Your task to perform on an android device: Open wifi settings Image 0: 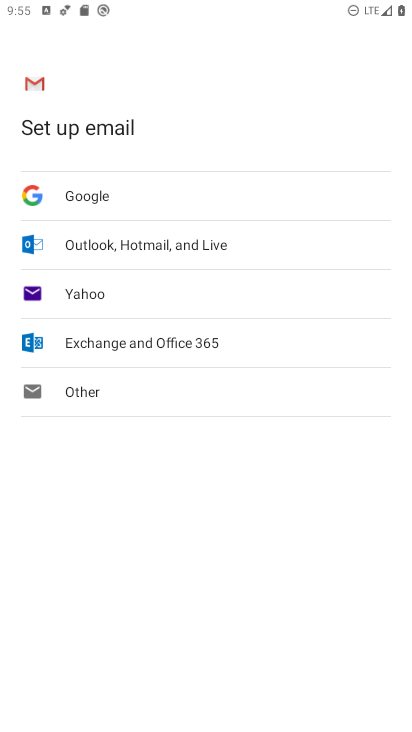
Step 0: press home button
Your task to perform on an android device: Open wifi settings Image 1: 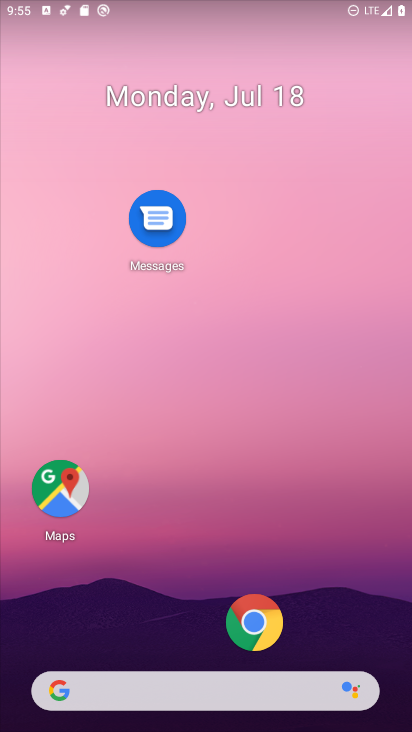
Step 1: drag from (264, 670) to (290, 86)
Your task to perform on an android device: Open wifi settings Image 2: 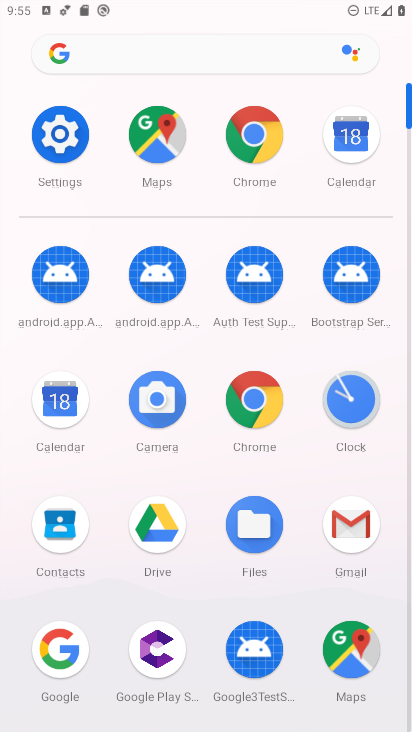
Step 2: click (62, 138)
Your task to perform on an android device: Open wifi settings Image 3: 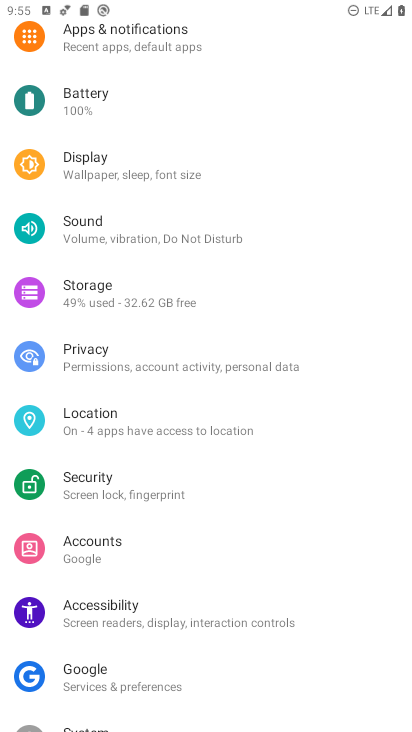
Step 3: drag from (223, 317) to (188, 477)
Your task to perform on an android device: Open wifi settings Image 4: 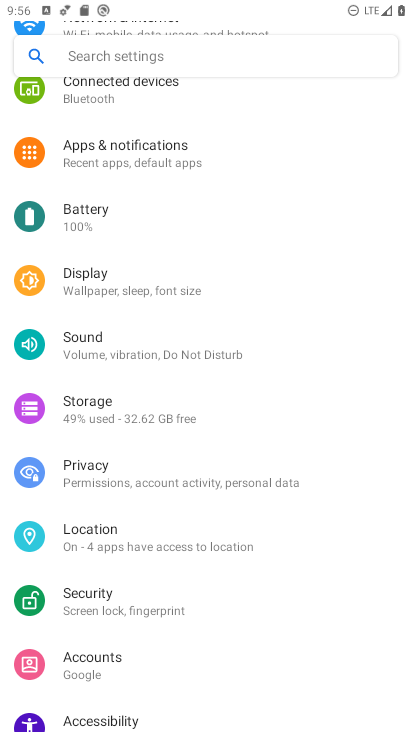
Step 4: drag from (185, 315) to (144, 653)
Your task to perform on an android device: Open wifi settings Image 5: 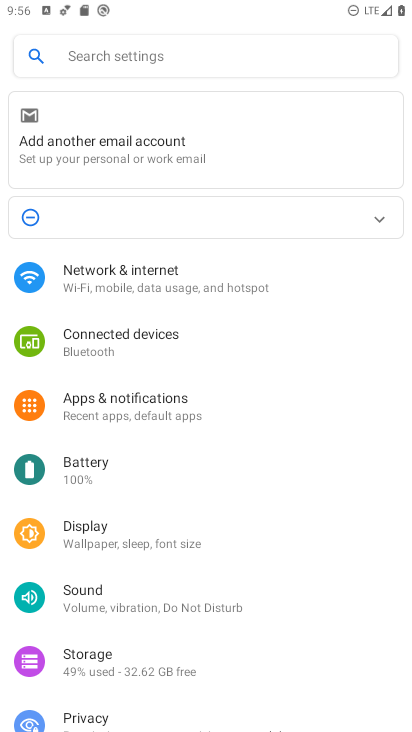
Step 5: click (172, 281)
Your task to perform on an android device: Open wifi settings Image 6: 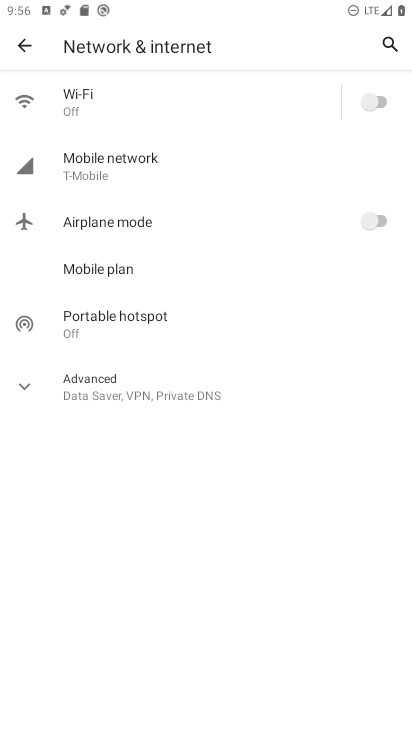
Step 6: click (161, 114)
Your task to perform on an android device: Open wifi settings Image 7: 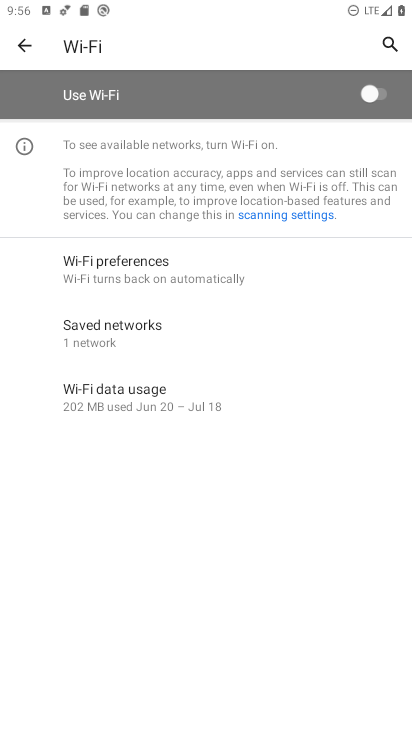
Step 7: task complete